Your task to perform on an android device: see sites visited before in the chrome app Image 0: 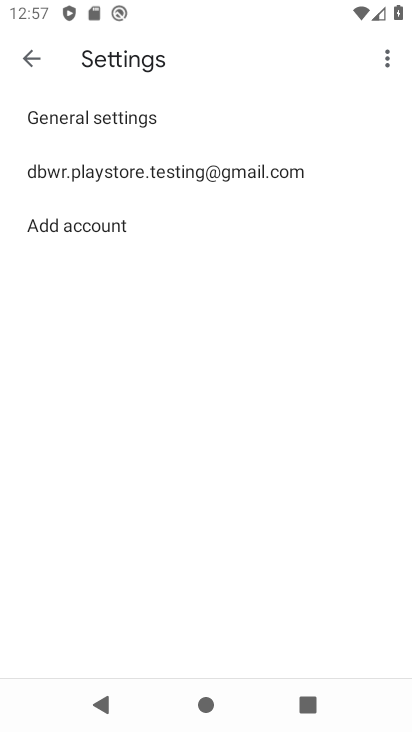
Step 0: press back button
Your task to perform on an android device: see sites visited before in the chrome app Image 1: 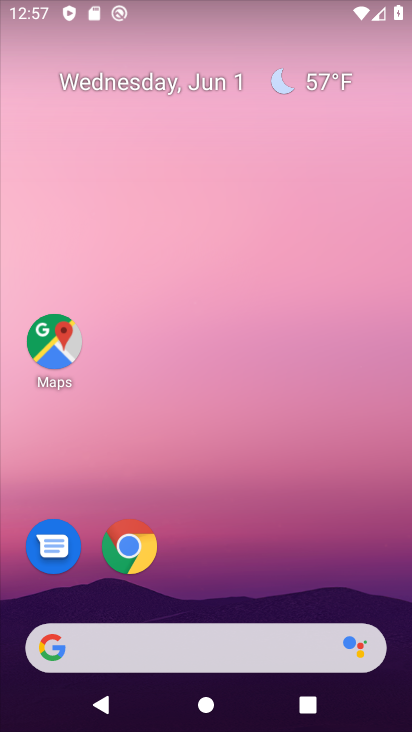
Step 1: click (125, 550)
Your task to perform on an android device: see sites visited before in the chrome app Image 2: 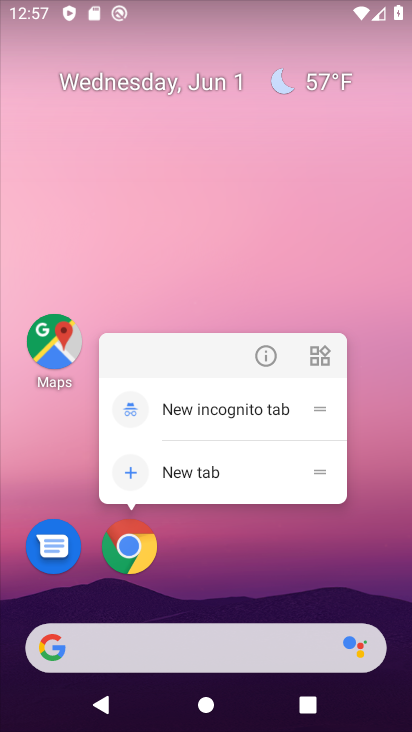
Step 2: click (143, 549)
Your task to perform on an android device: see sites visited before in the chrome app Image 3: 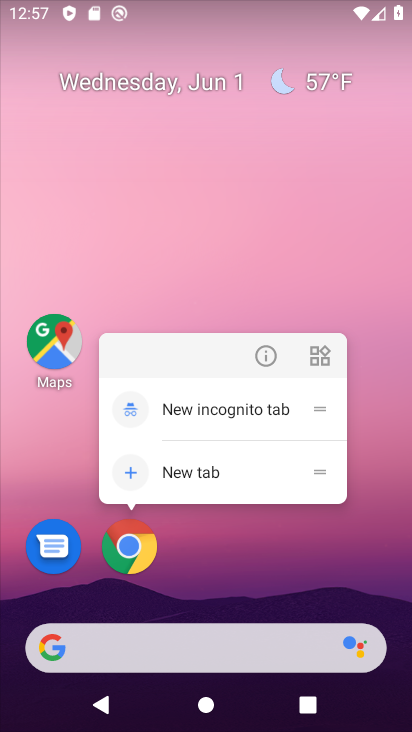
Step 3: click (124, 554)
Your task to perform on an android device: see sites visited before in the chrome app Image 4: 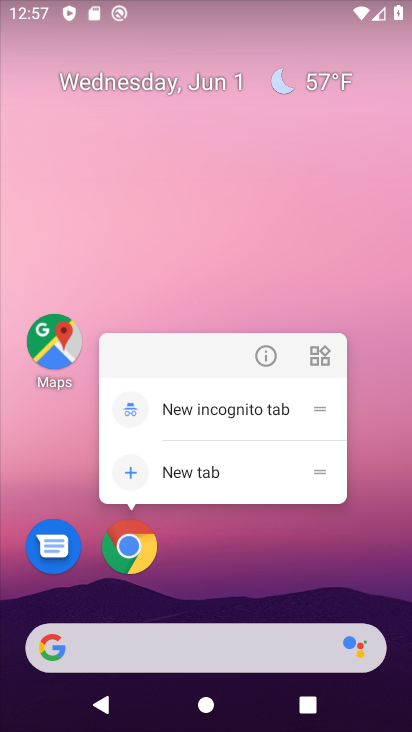
Step 4: click (124, 554)
Your task to perform on an android device: see sites visited before in the chrome app Image 5: 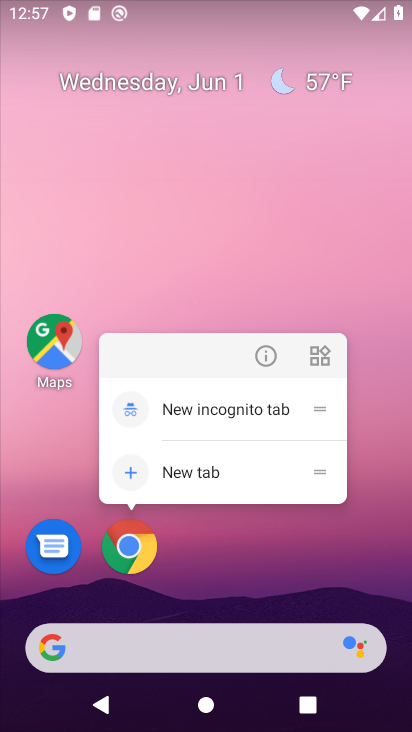
Step 5: click (124, 554)
Your task to perform on an android device: see sites visited before in the chrome app Image 6: 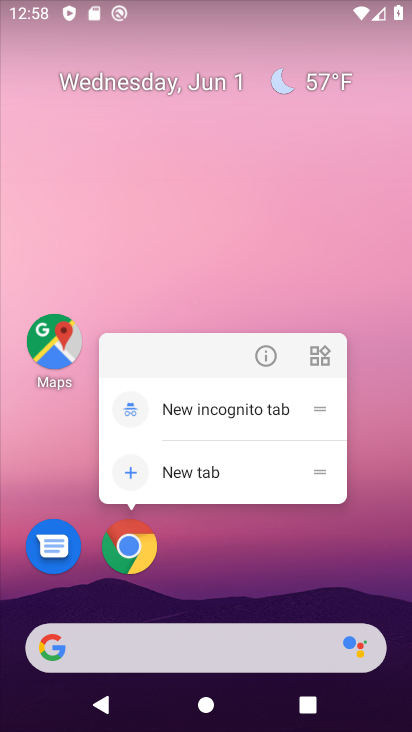
Step 6: click (135, 553)
Your task to perform on an android device: see sites visited before in the chrome app Image 7: 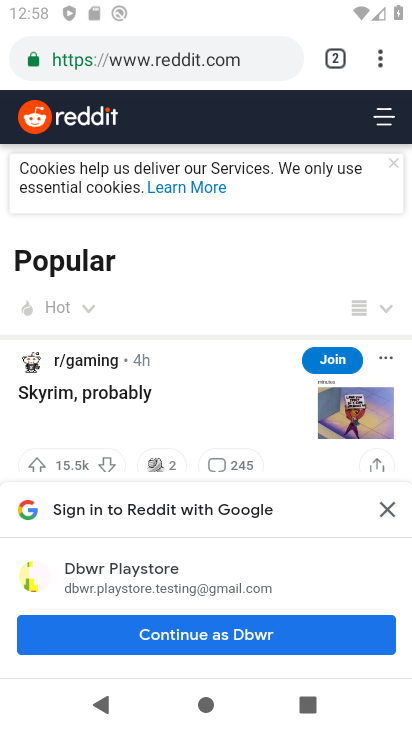
Step 7: click (380, 62)
Your task to perform on an android device: see sites visited before in the chrome app Image 8: 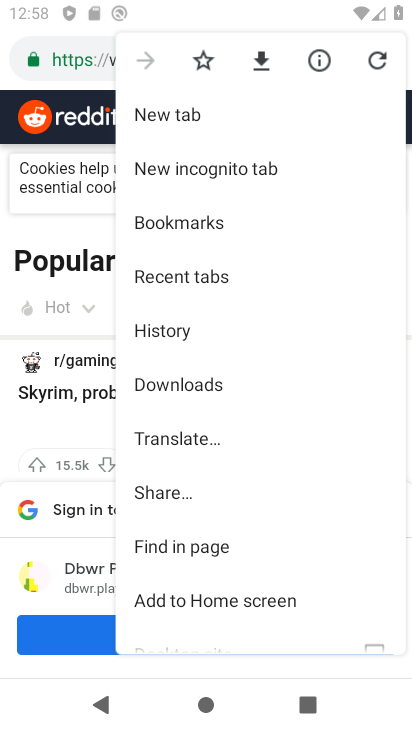
Step 8: click (133, 317)
Your task to perform on an android device: see sites visited before in the chrome app Image 9: 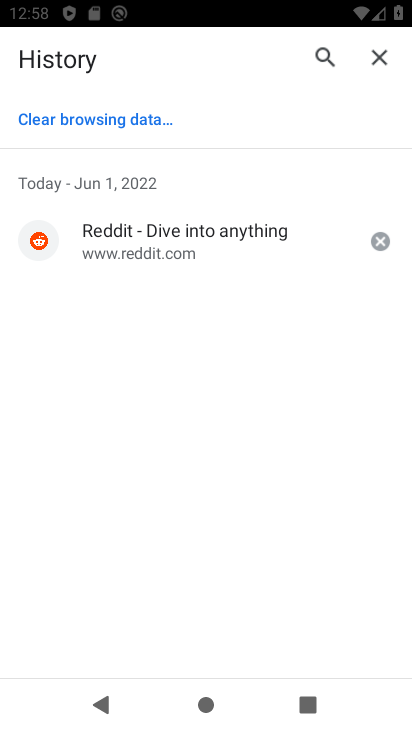
Step 9: task complete